Your task to perform on an android device: Add "razer thresher" to the cart on target Image 0: 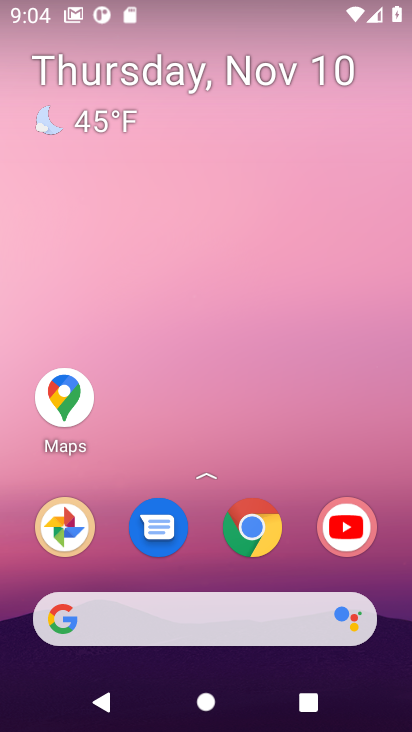
Step 0: drag from (265, 526) to (234, 75)
Your task to perform on an android device: Add "razer thresher" to the cart on target Image 1: 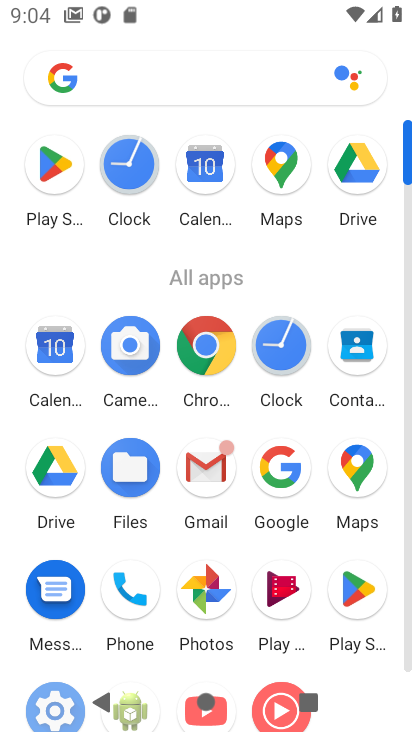
Step 1: click (205, 347)
Your task to perform on an android device: Add "razer thresher" to the cart on target Image 2: 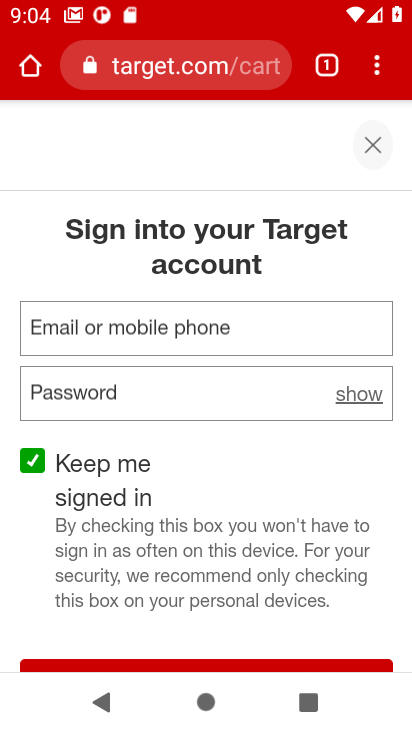
Step 2: press back button
Your task to perform on an android device: Add "razer thresher" to the cart on target Image 3: 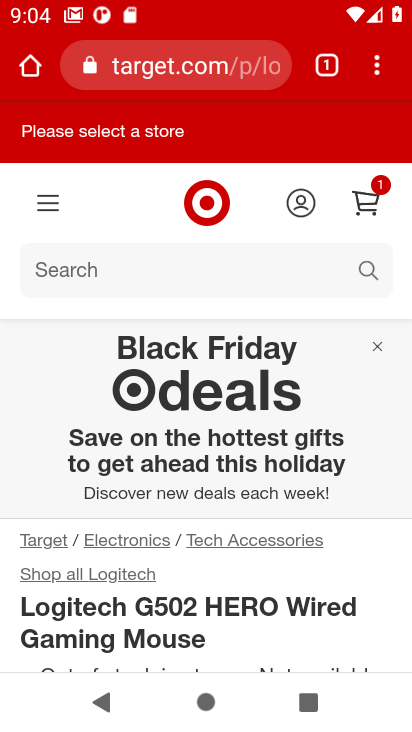
Step 3: click (102, 268)
Your task to perform on an android device: Add "razer thresher" to the cart on target Image 4: 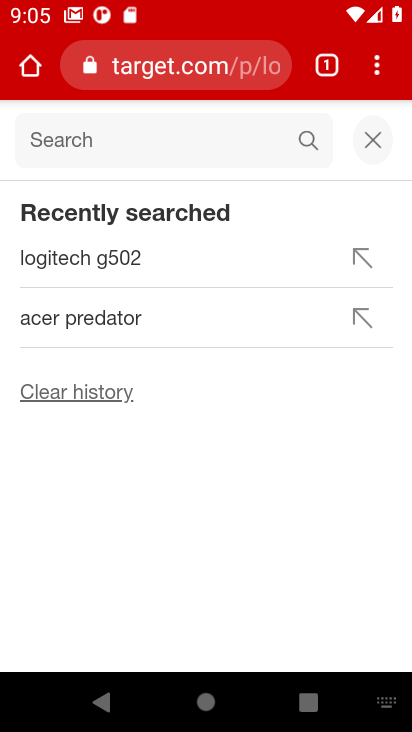
Step 4: type "razer thresher"
Your task to perform on an android device: Add "razer thresher" to the cart on target Image 5: 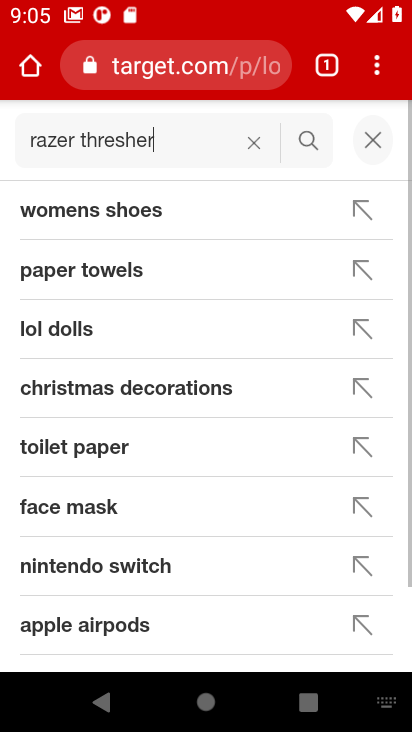
Step 5: press enter
Your task to perform on an android device: Add "razer thresher" to the cart on target Image 6: 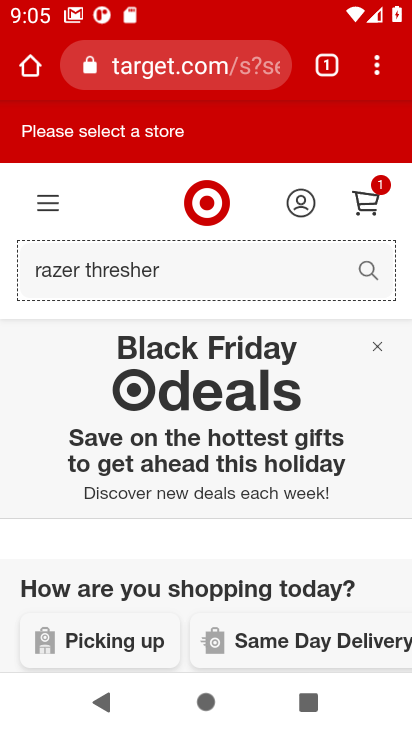
Step 6: drag from (288, 529) to (318, 238)
Your task to perform on an android device: Add "razer thresher" to the cart on target Image 7: 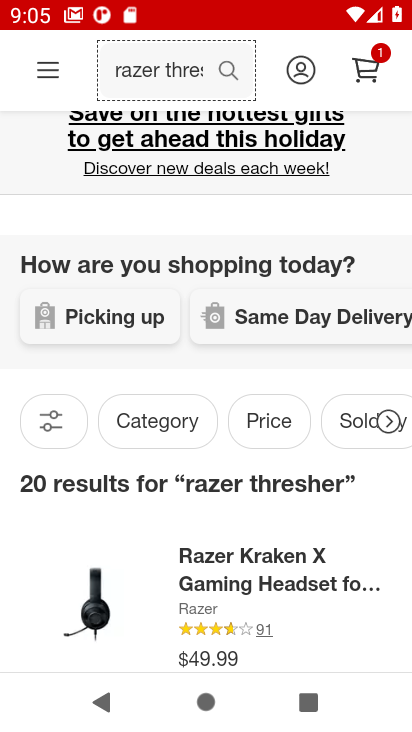
Step 7: drag from (217, 474) to (272, 277)
Your task to perform on an android device: Add "razer thresher" to the cart on target Image 8: 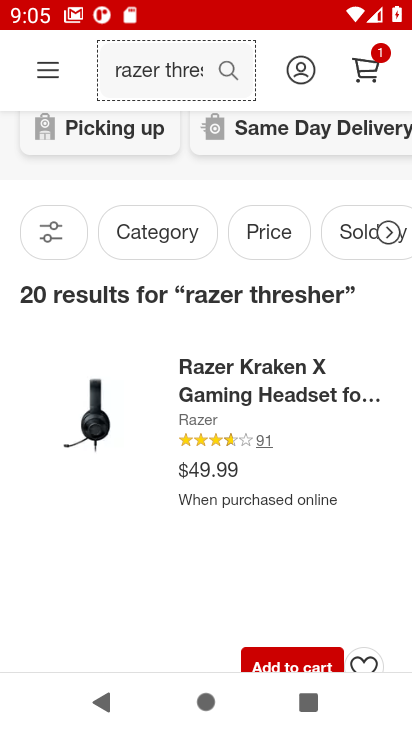
Step 8: drag from (279, 471) to (313, 212)
Your task to perform on an android device: Add "razer thresher" to the cart on target Image 9: 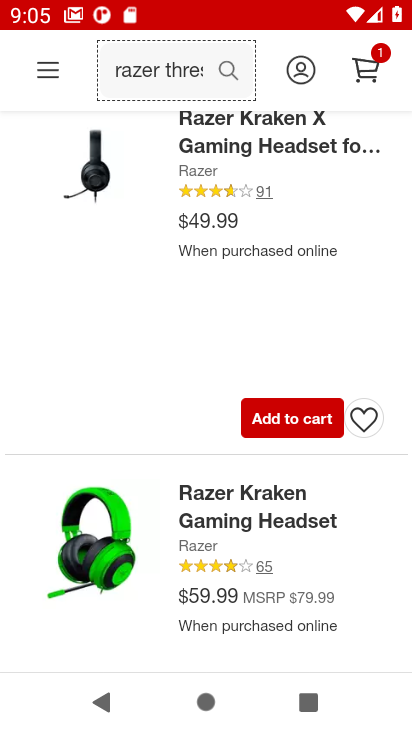
Step 9: click (301, 409)
Your task to perform on an android device: Add "razer thresher" to the cart on target Image 10: 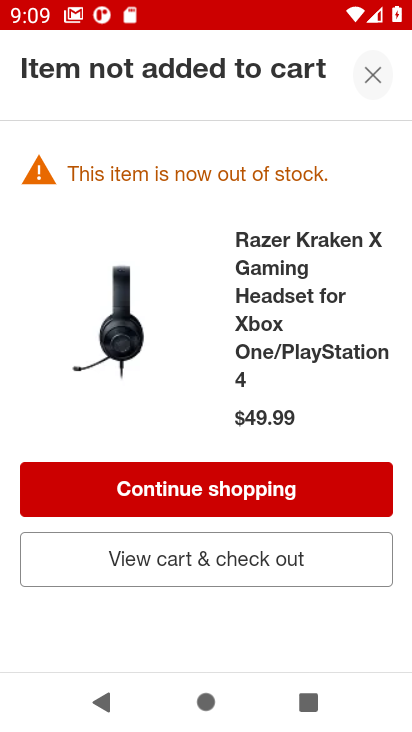
Step 10: task complete